Your task to perform on an android device: Go to display settings Image 0: 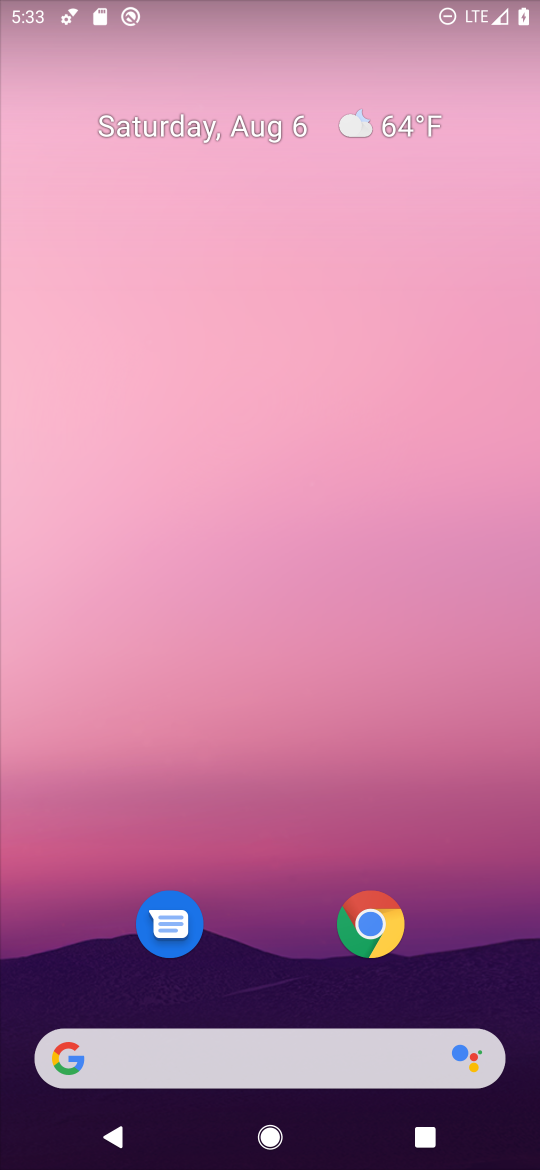
Step 0: press home button
Your task to perform on an android device: Go to display settings Image 1: 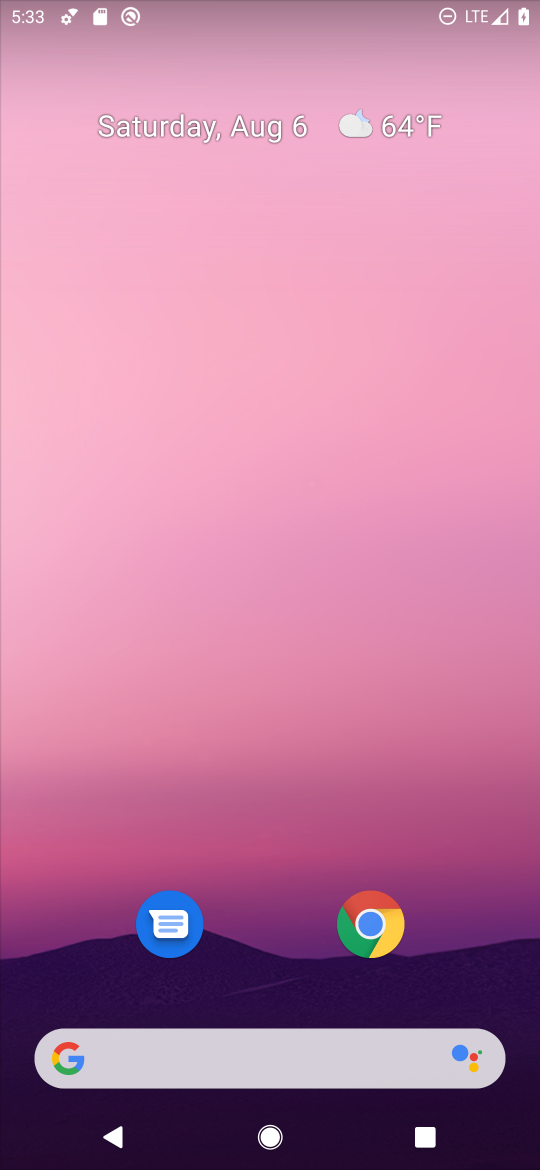
Step 1: drag from (282, 930) to (282, 129)
Your task to perform on an android device: Go to display settings Image 2: 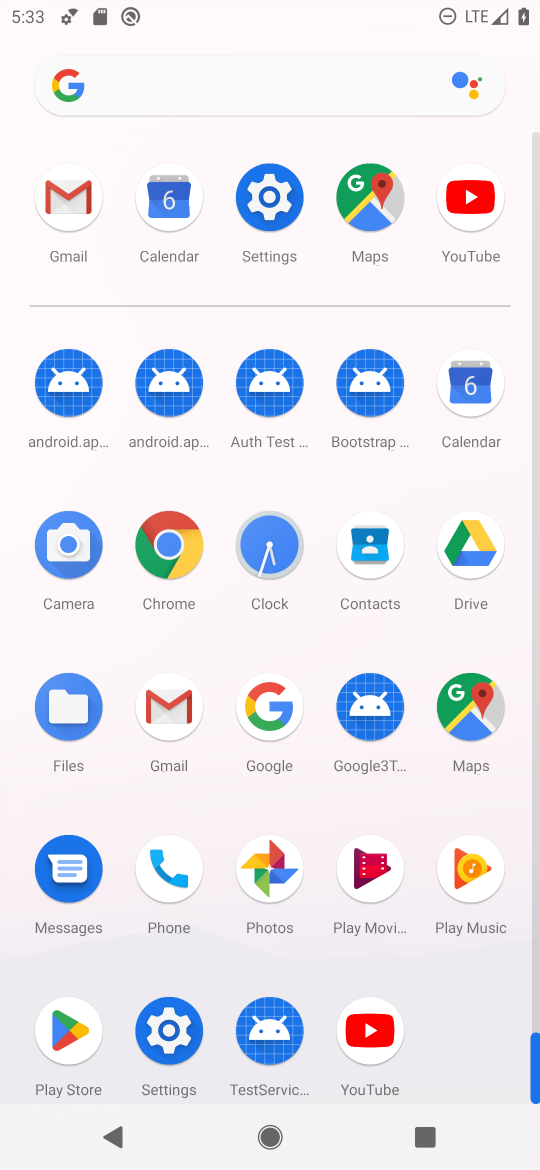
Step 2: click (261, 184)
Your task to perform on an android device: Go to display settings Image 3: 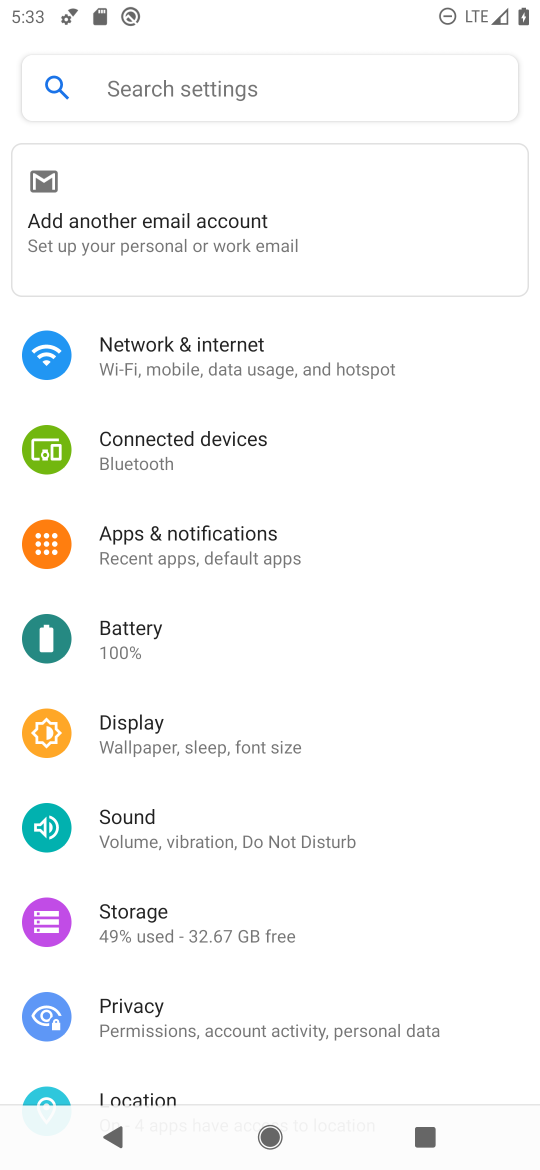
Step 3: click (132, 705)
Your task to perform on an android device: Go to display settings Image 4: 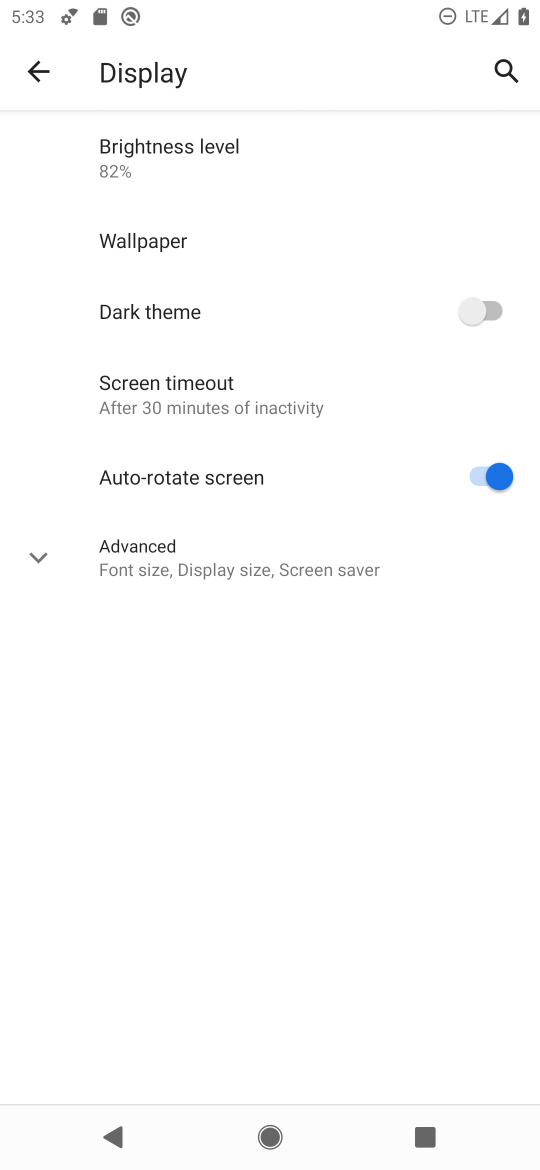
Step 4: task complete